Your task to perform on an android device: add a contact Image 0: 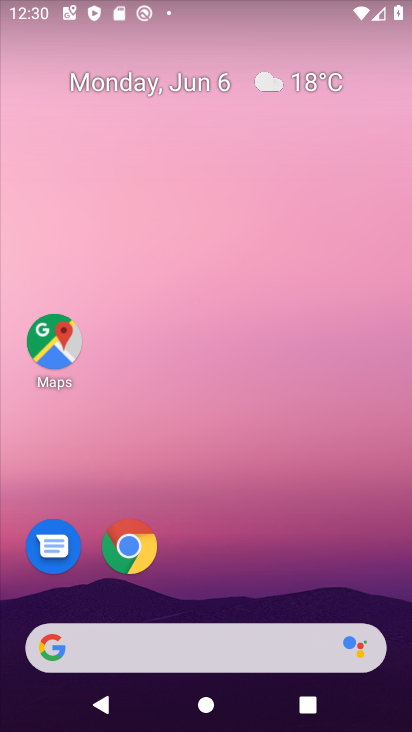
Step 0: press home button
Your task to perform on an android device: add a contact Image 1: 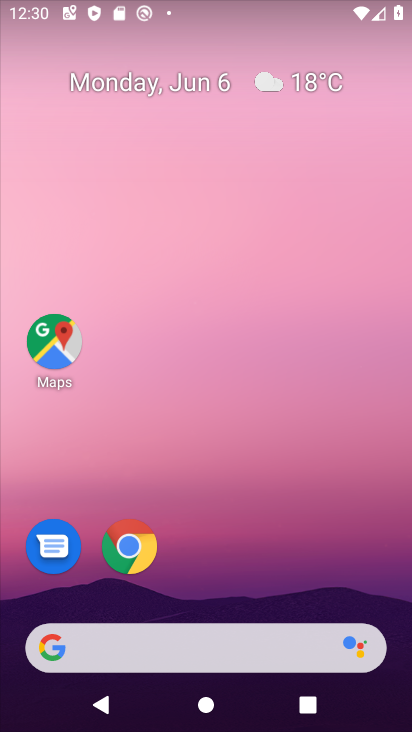
Step 1: drag from (274, 534) to (279, 168)
Your task to perform on an android device: add a contact Image 2: 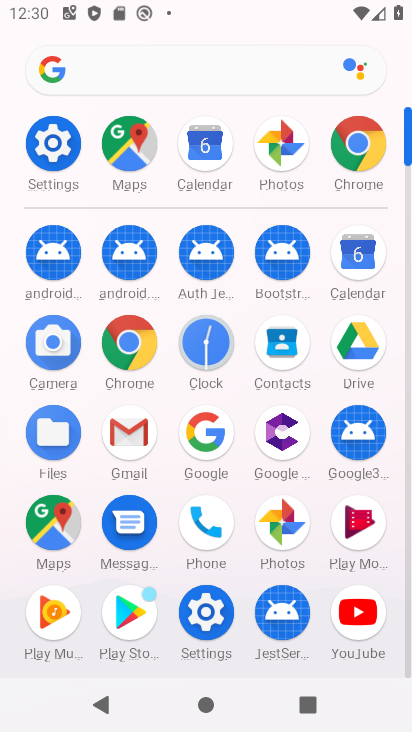
Step 2: click (283, 345)
Your task to perform on an android device: add a contact Image 3: 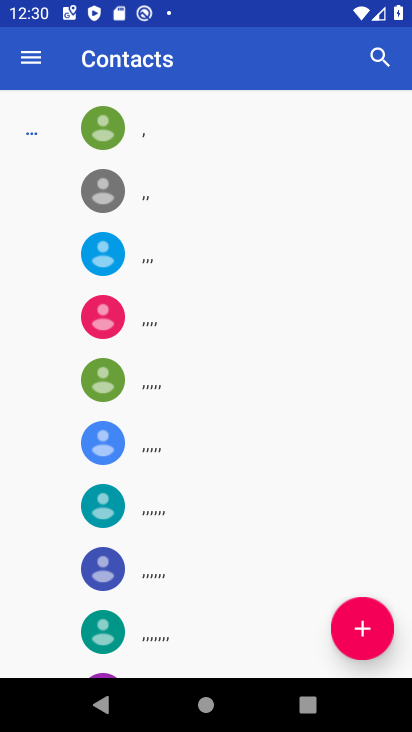
Step 3: click (347, 619)
Your task to perform on an android device: add a contact Image 4: 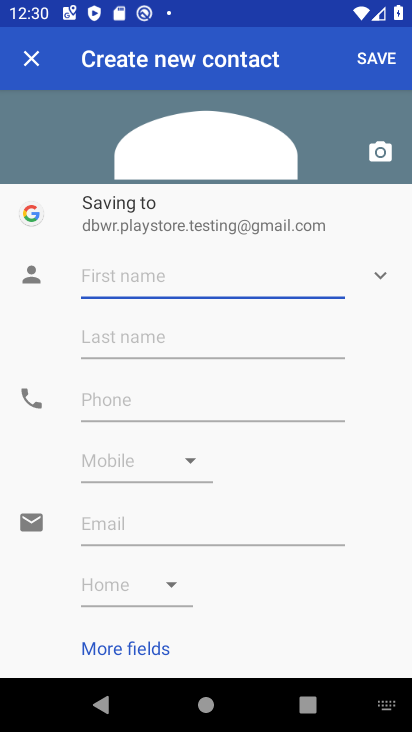
Step 4: click (224, 271)
Your task to perform on an android device: add a contact Image 5: 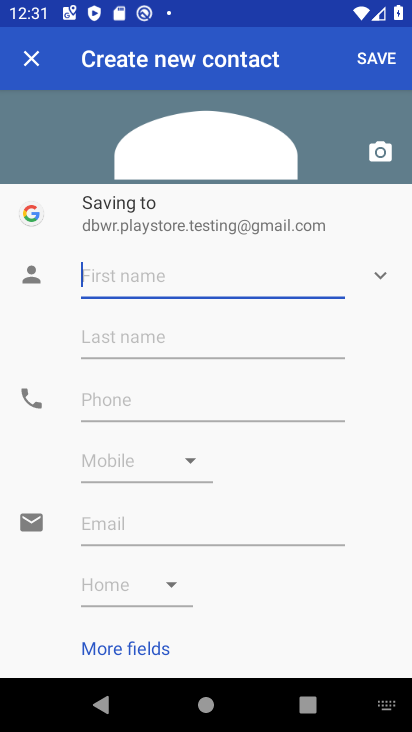
Step 5: type "hffhghhghff"
Your task to perform on an android device: add a contact Image 6: 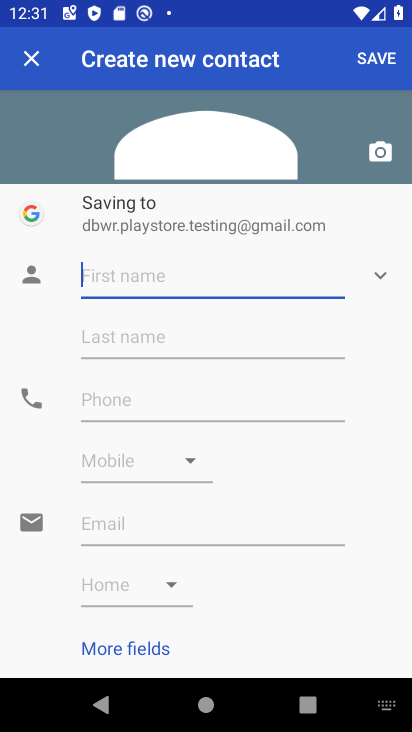
Step 6: click (249, 277)
Your task to perform on an android device: add a contact Image 7: 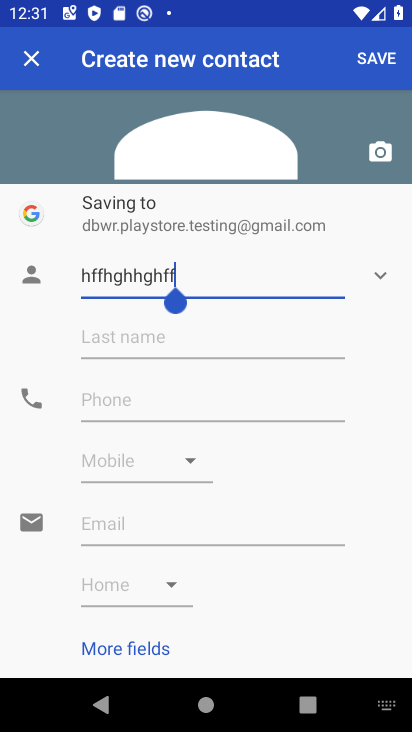
Step 7: click (146, 396)
Your task to perform on an android device: add a contact Image 8: 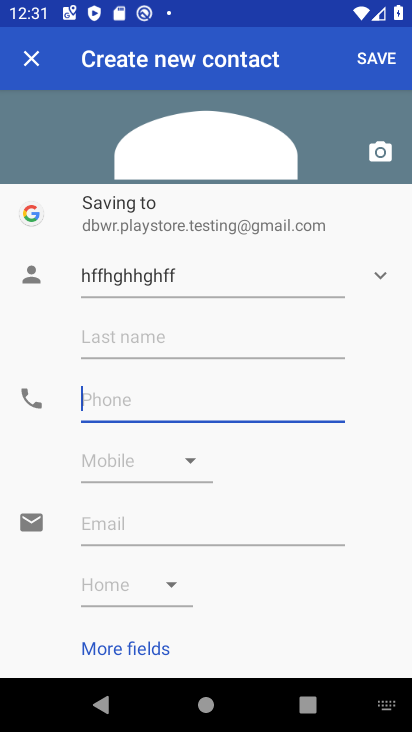
Step 8: type "55445545454"
Your task to perform on an android device: add a contact Image 9: 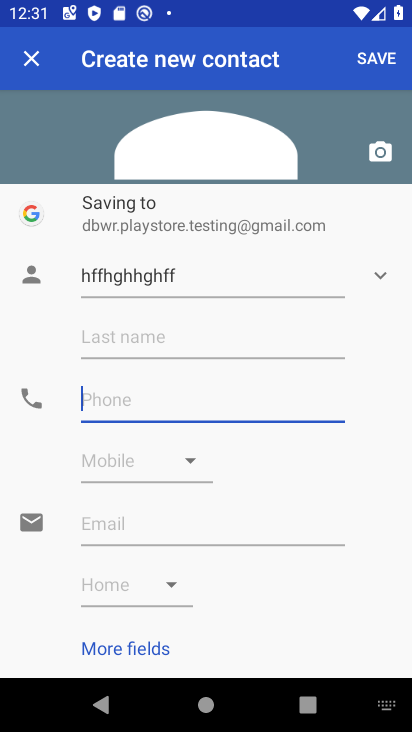
Step 9: click (197, 393)
Your task to perform on an android device: add a contact Image 10: 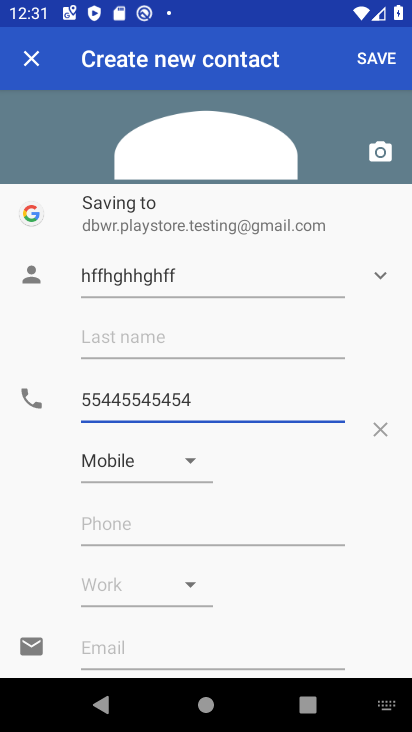
Step 10: click (371, 64)
Your task to perform on an android device: add a contact Image 11: 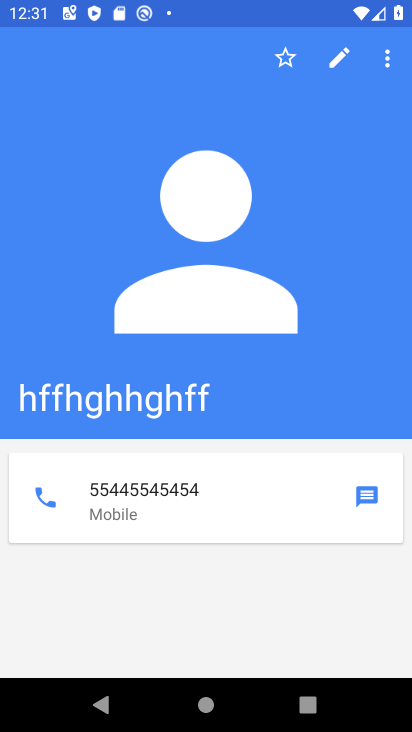
Step 11: task complete